Your task to perform on an android device: What's the weather going to be tomorrow? Image 0: 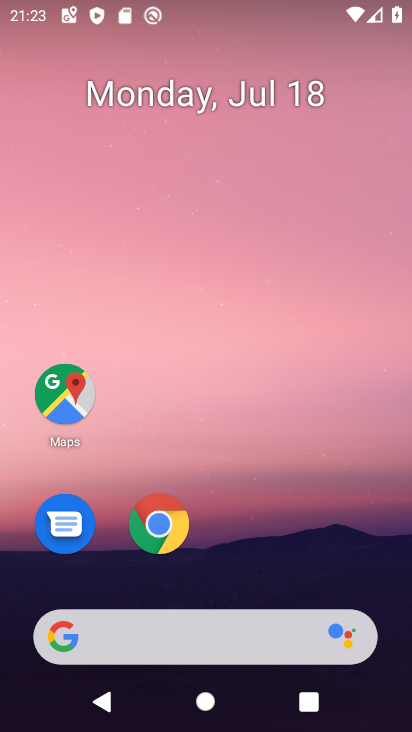
Step 0: drag from (290, 534) to (266, 83)
Your task to perform on an android device: What's the weather going to be tomorrow? Image 1: 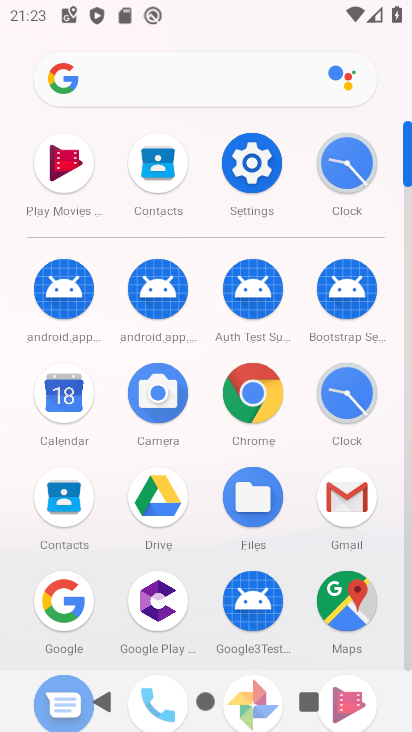
Step 1: click (209, 76)
Your task to perform on an android device: What's the weather going to be tomorrow? Image 2: 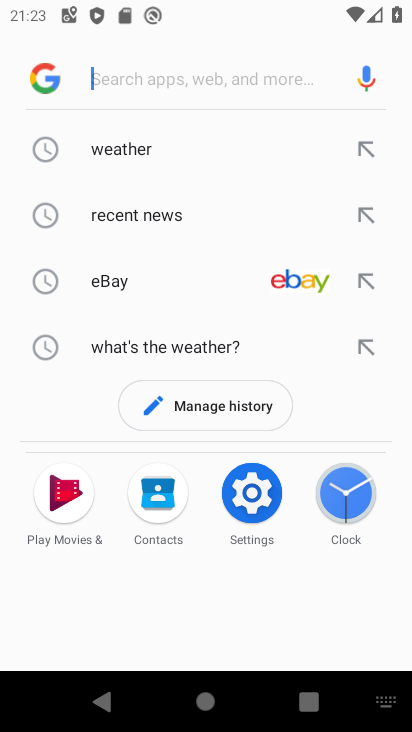
Step 2: click (143, 139)
Your task to perform on an android device: What's the weather going to be tomorrow? Image 3: 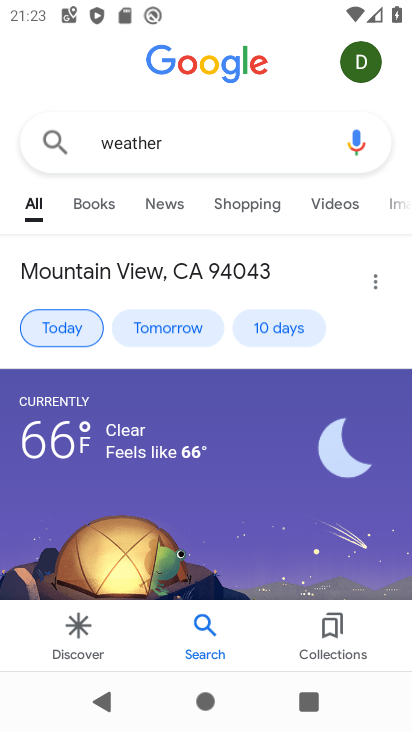
Step 3: click (87, 332)
Your task to perform on an android device: What's the weather going to be tomorrow? Image 4: 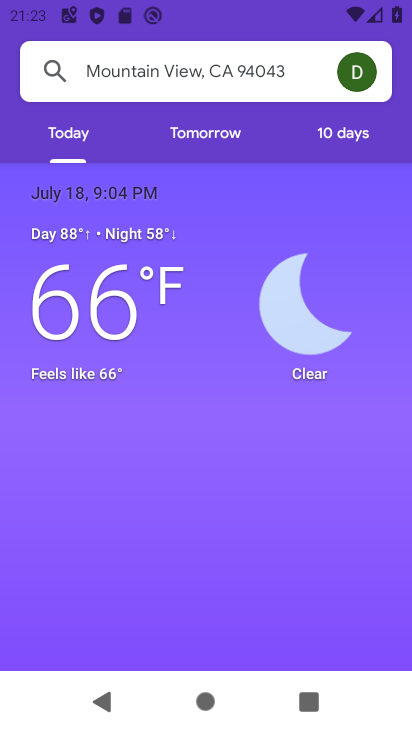
Step 4: click (215, 147)
Your task to perform on an android device: What's the weather going to be tomorrow? Image 5: 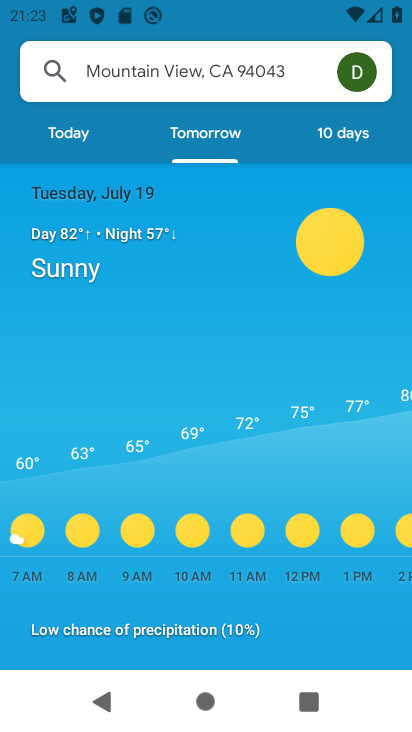
Step 5: task complete